Your task to perform on an android device: turn off priority inbox in the gmail app Image 0: 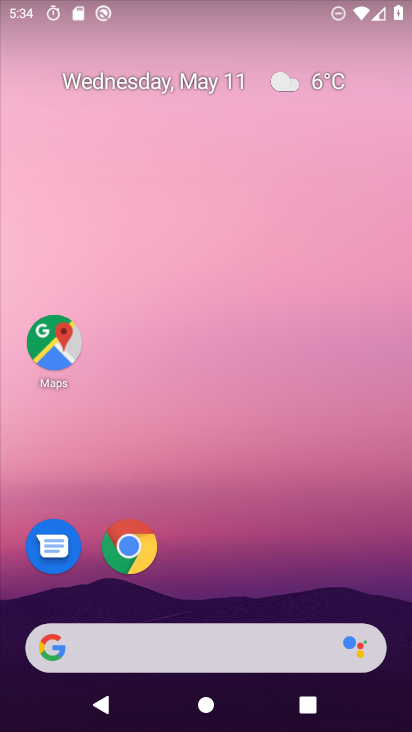
Step 0: press home button
Your task to perform on an android device: turn off priority inbox in the gmail app Image 1: 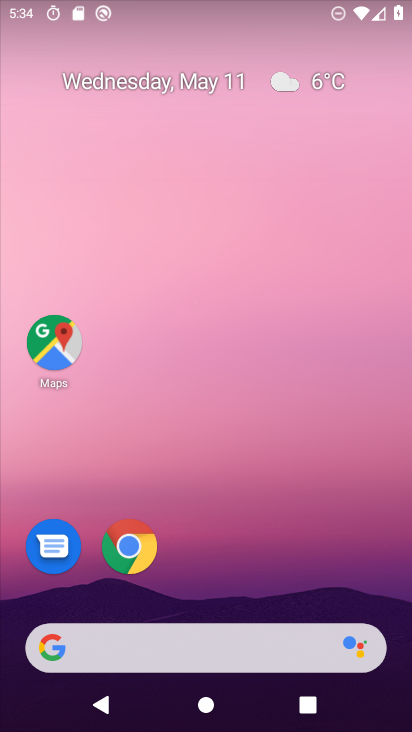
Step 1: drag from (196, 613) to (196, 236)
Your task to perform on an android device: turn off priority inbox in the gmail app Image 2: 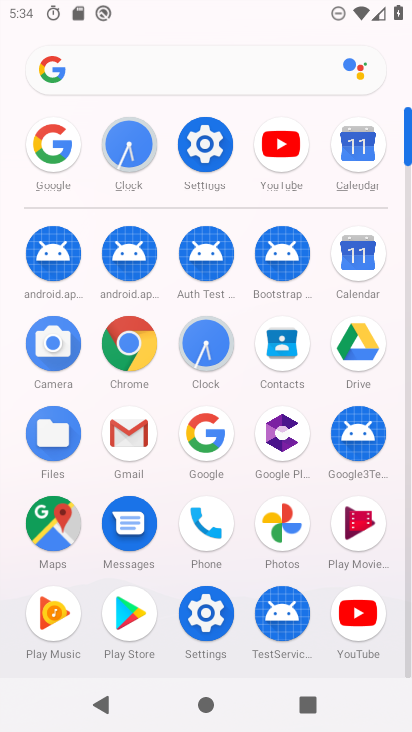
Step 2: click (114, 436)
Your task to perform on an android device: turn off priority inbox in the gmail app Image 3: 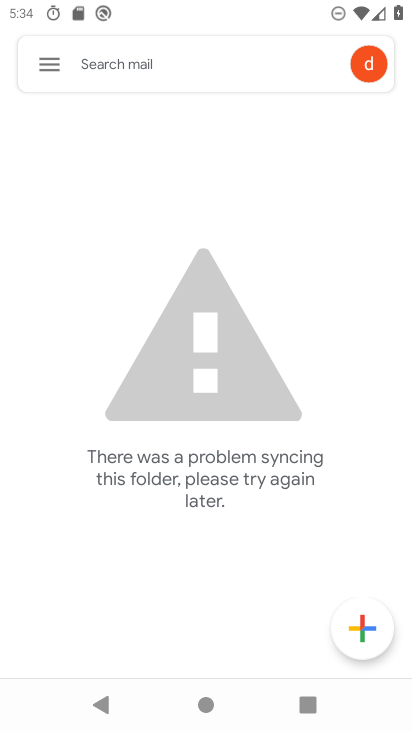
Step 3: click (42, 63)
Your task to perform on an android device: turn off priority inbox in the gmail app Image 4: 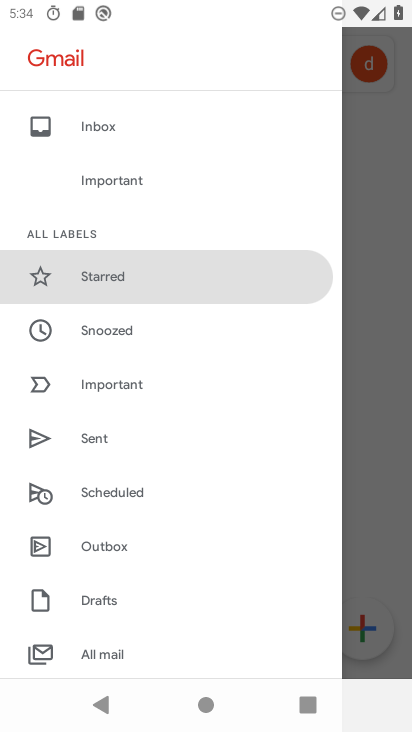
Step 4: drag from (119, 660) to (120, 342)
Your task to perform on an android device: turn off priority inbox in the gmail app Image 5: 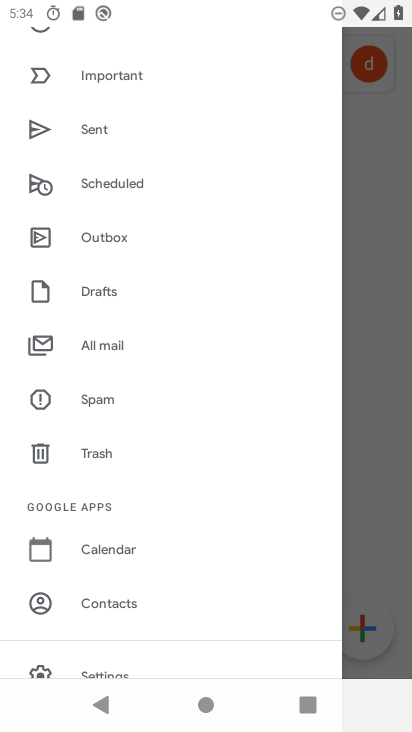
Step 5: drag from (105, 664) to (105, 428)
Your task to perform on an android device: turn off priority inbox in the gmail app Image 6: 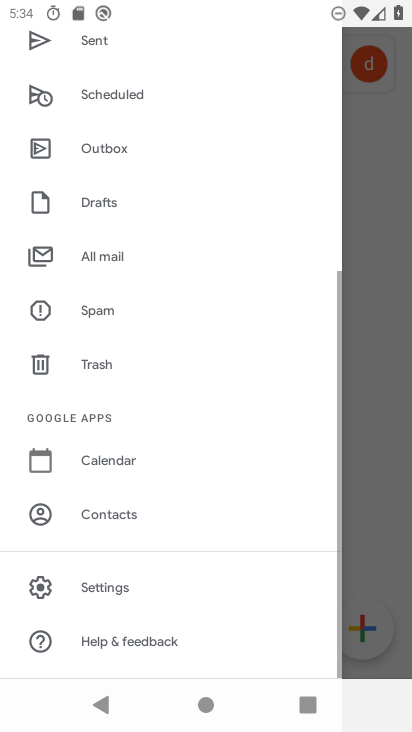
Step 6: click (103, 589)
Your task to perform on an android device: turn off priority inbox in the gmail app Image 7: 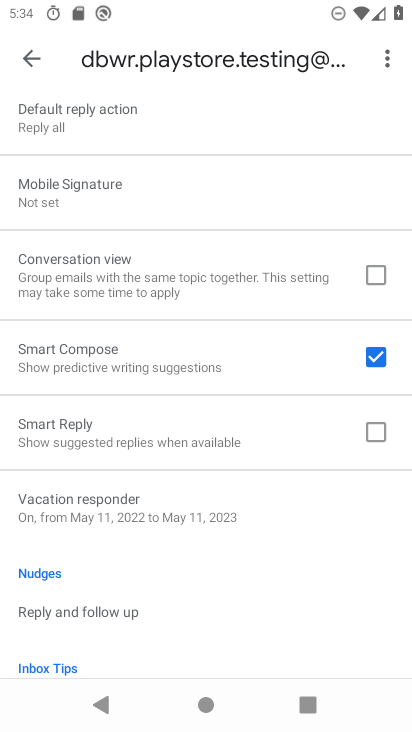
Step 7: drag from (78, 606) to (90, 318)
Your task to perform on an android device: turn off priority inbox in the gmail app Image 8: 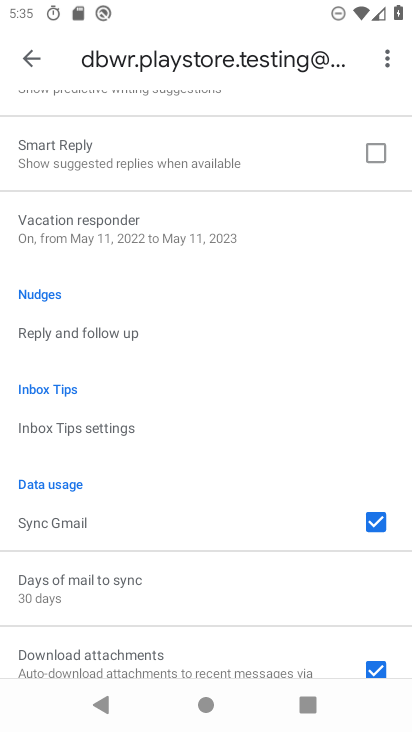
Step 8: drag from (130, 162) to (187, 546)
Your task to perform on an android device: turn off priority inbox in the gmail app Image 9: 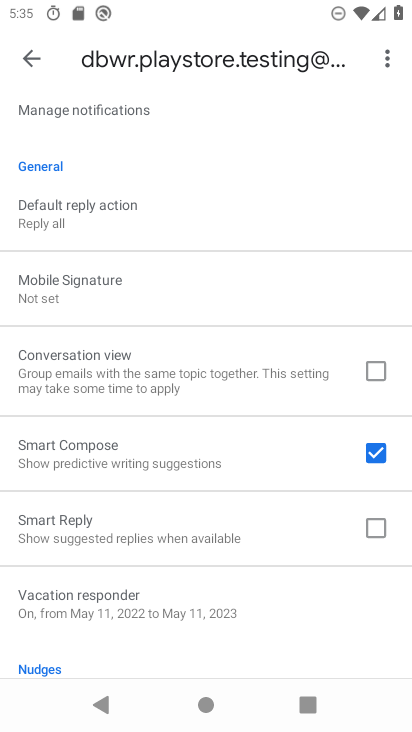
Step 9: drag from (121, 158) to (115, 484)
Your task to perform on an android device: turn off priority inbox in the gmail app Image 10: 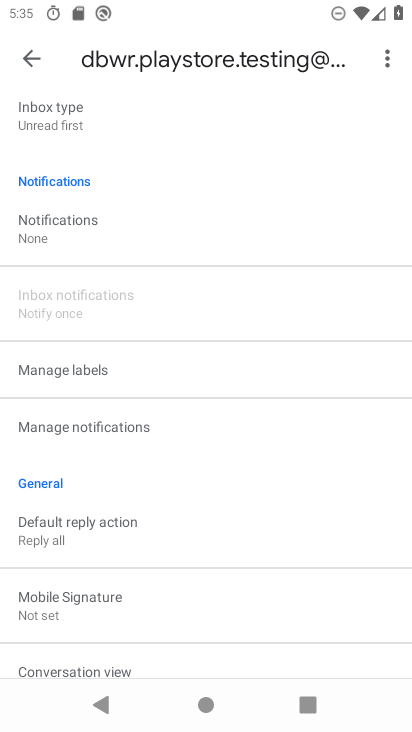
Step 10: click (63, 120)
Your task to perform on an android device: turn off priority inbox in the gmail app Image 11: 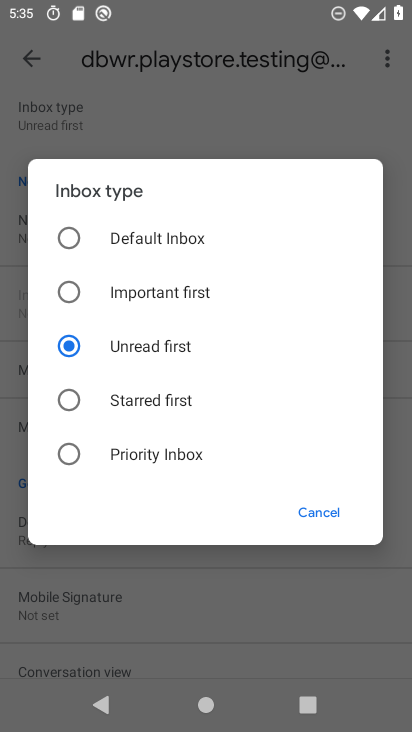
Step 11: click (319, 510)
Your task to perform on an android device: turn off priority inbox in the gmail app Image 12: 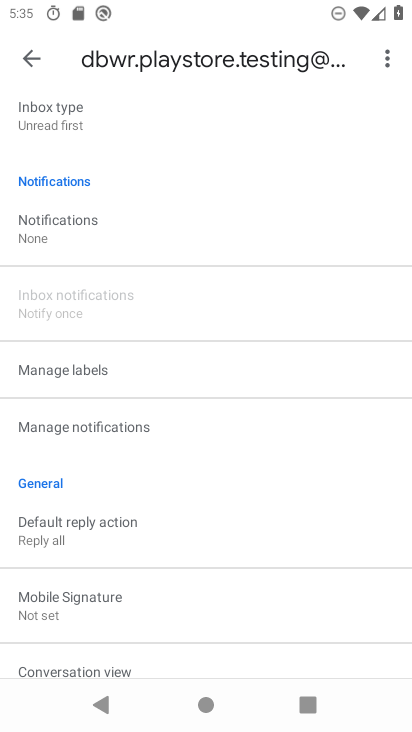
Step 12: task complete